Your task to perform on an android device: Open maps Image 0: 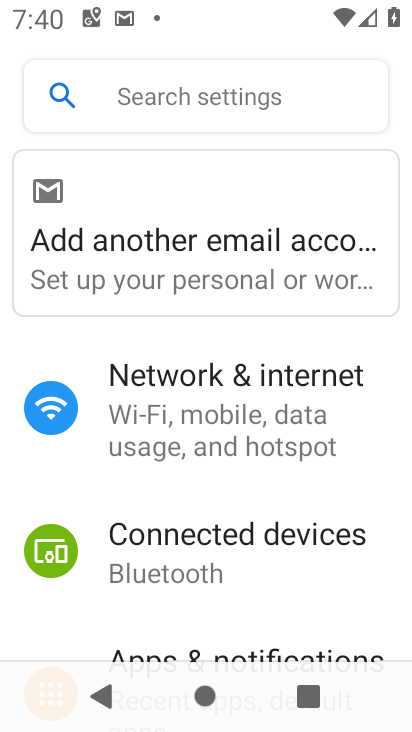
Step 0: press home button
Your task to perform on an android device: Open maps Image 1: 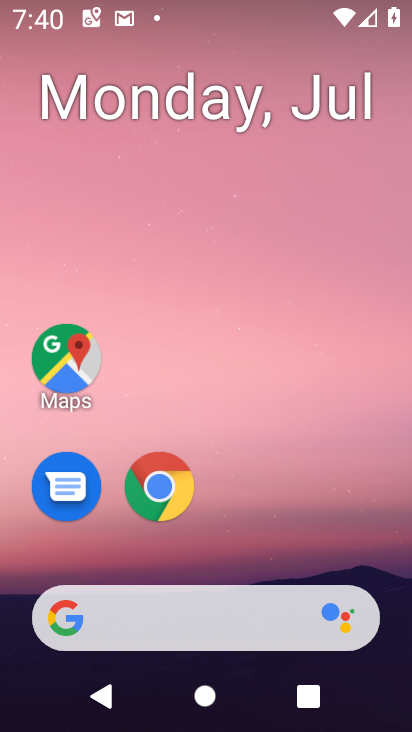
Step 1: drag from (361, 531) to (371, 138)
Your task to perform on an android device: Open maps Image 2: 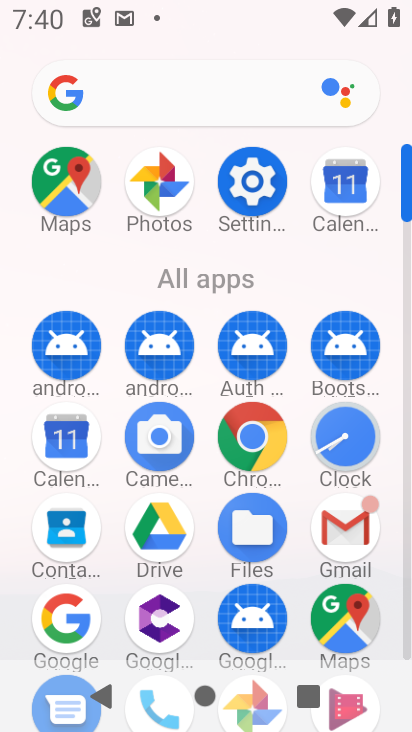
Step 2: click (351, 604)
Your task to perform on an android device: Open maps Image 3: 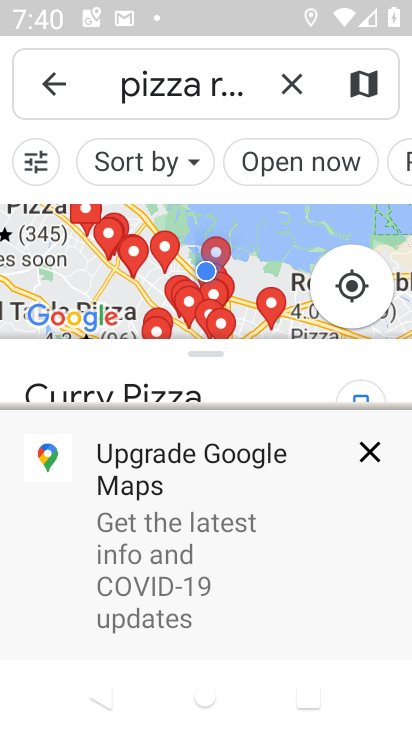
Step 3: task complete